Your task to perform on an android device: find photos in the google photos app Image 0: 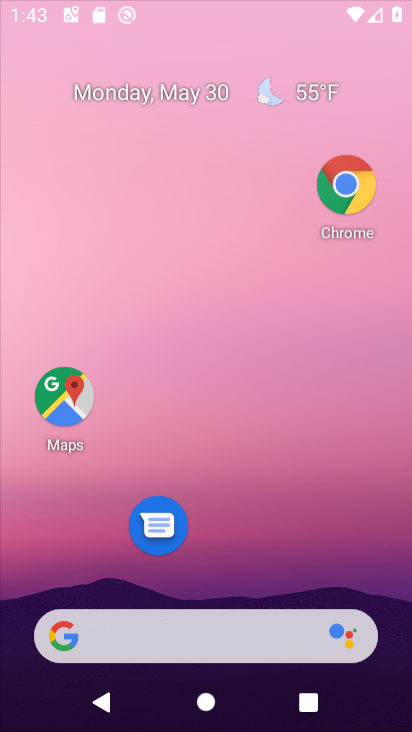
Step 0: drag from (257, 493) to (301, 7)
Your task to perform on an android device: find photos in the google photos app Image 1: 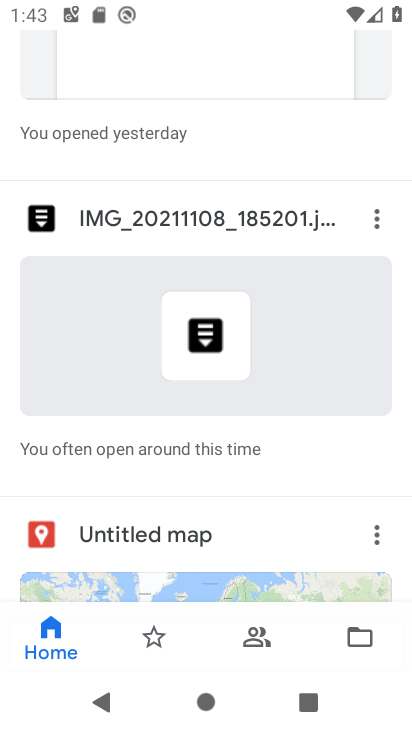
Step 1: press home button
Your task to perform on an android device: find photos in the google photos app Image 2: 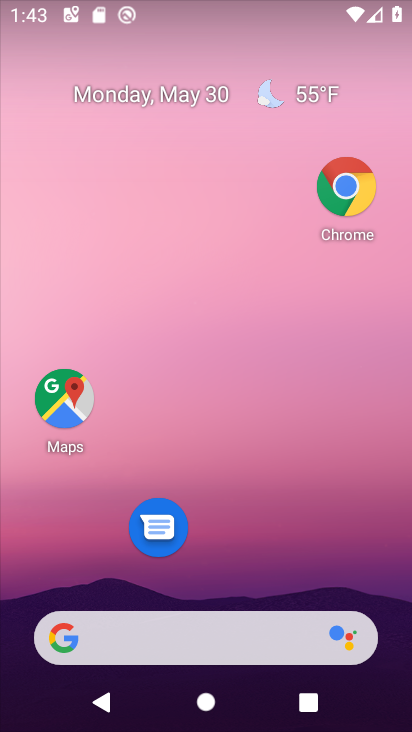
Step 2: drag from (217, 532) to (252, 33)
Your task to perform on an android device: find photos in the google photos app Image 3: 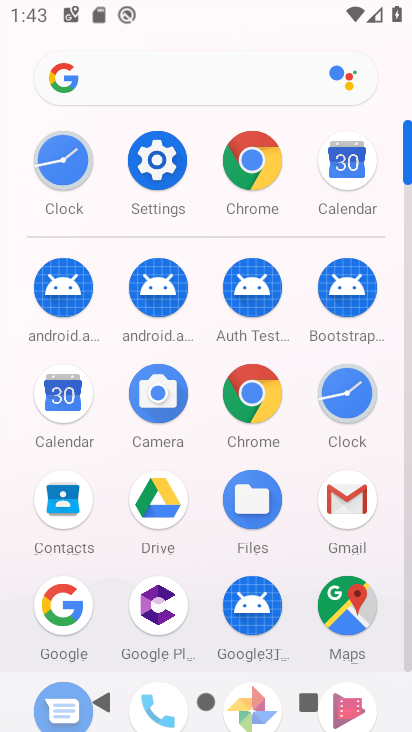
Step 3: drag from (206, 560) to (235, 127)
Your task to perform on an android device: find photos in the google photos app Image 4: 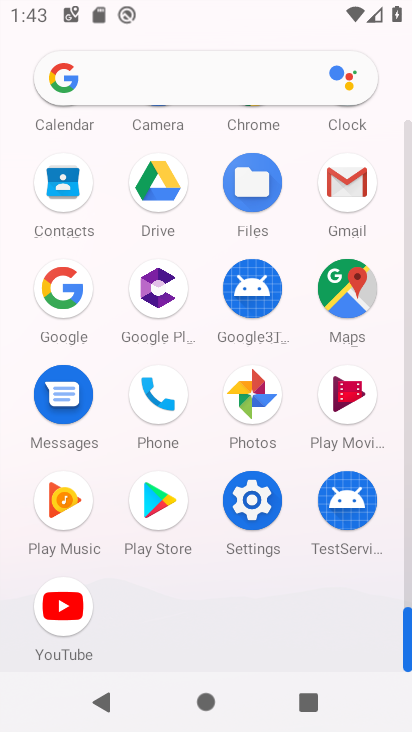
Step 4: click (245, 391)
Your task to perform on an android device: find photos in the google photos app Image 5: 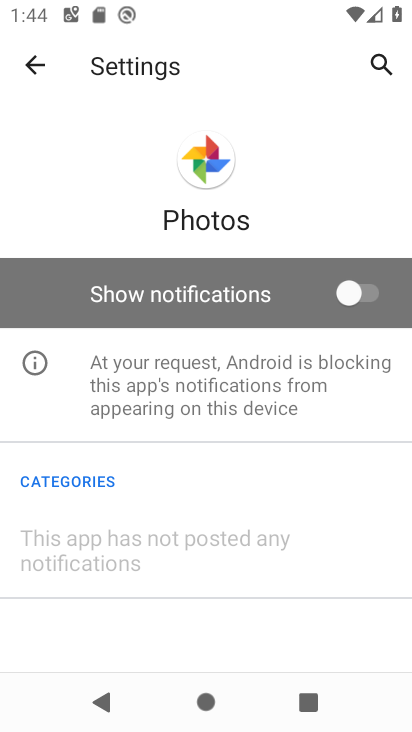
Step 5: drag from (184, 577) to (225, 89)
Your task to perform on an android device: find photos in the google photos app Image 6: 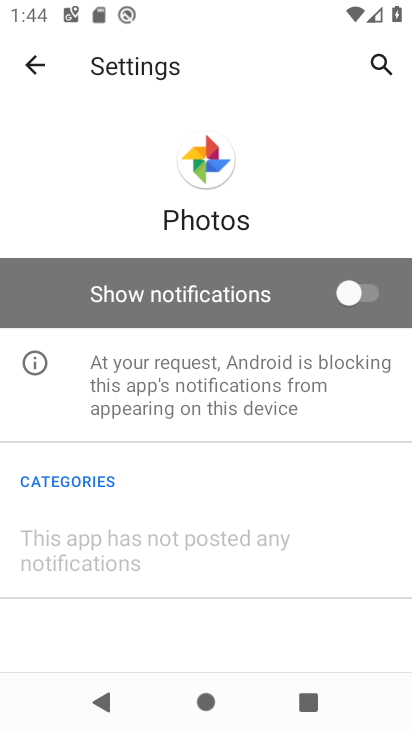
Step 6: drag from (217, 469) to (246, 168)
Your task to perform on an android device: find photos in the google photos app Image 7: 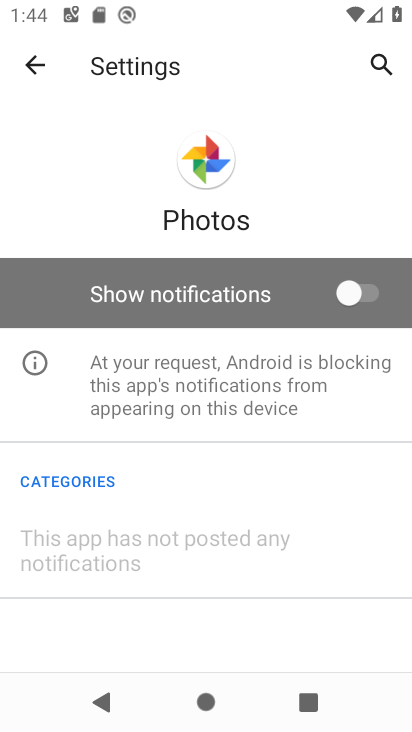
Step 7: click (24, 63)
Your task to perform on an android device: find photos in the google photos app Image 8: 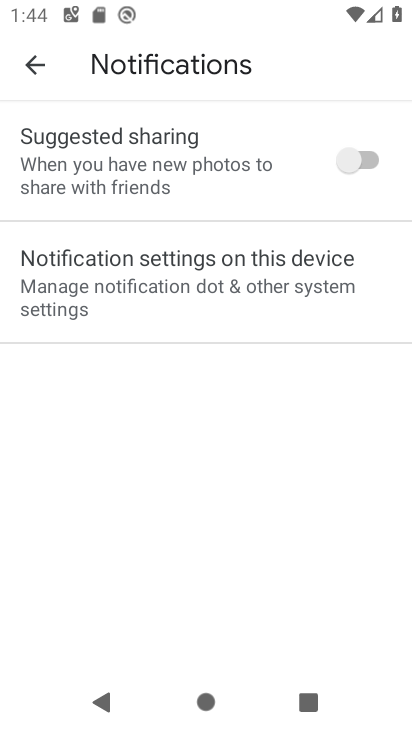
Step 8: drag from (148, 546) to (234, 348)
Your task to perform on an android device: find photos in the google photos app Image 9: 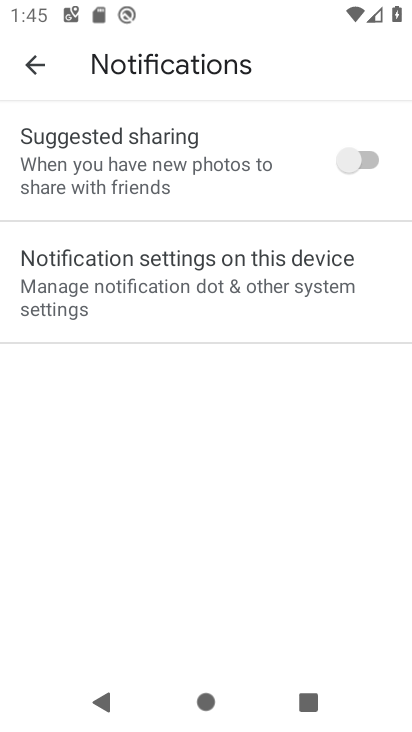
Step 9: click (32, 71)
Your task to perform on an android device: find photos in the google photos app Image 10: 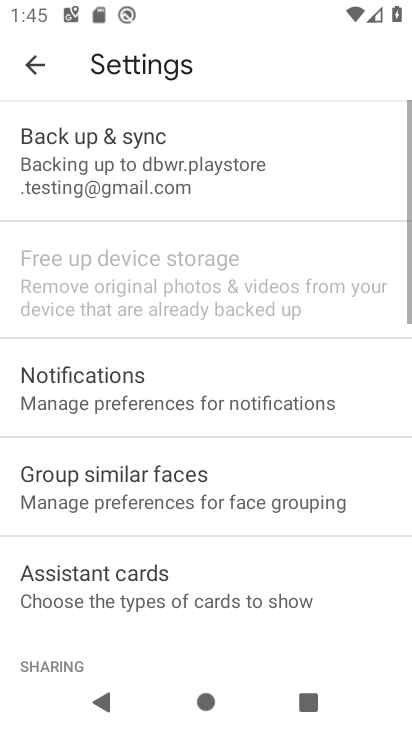
Step 10: click (31, 70)
Your task to perform on an android device: find photos in the google photos app Image 11: 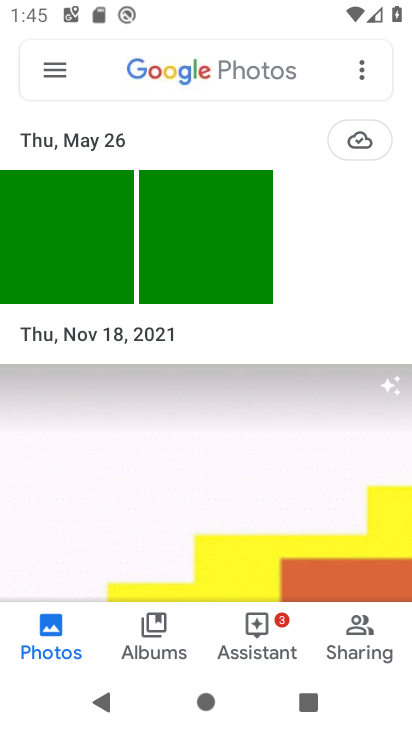
Step 11: click (98, 227)
Your task to perform on an android device: find photos in the google photos app Image 12: 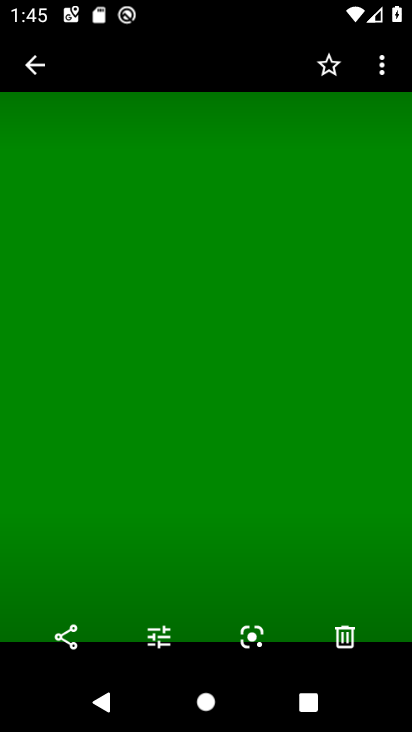
Step 12: task complete